Your task to perform on an android device: turn off wifi Image 0: 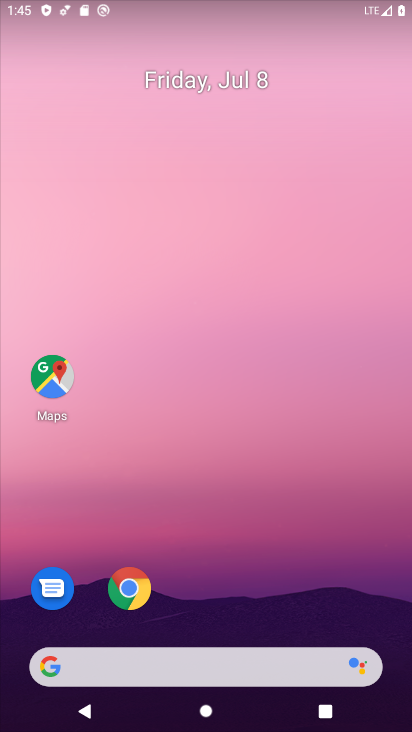
Step 0: press home button
Your task to perform on an android device: turn off wifi Image 1: 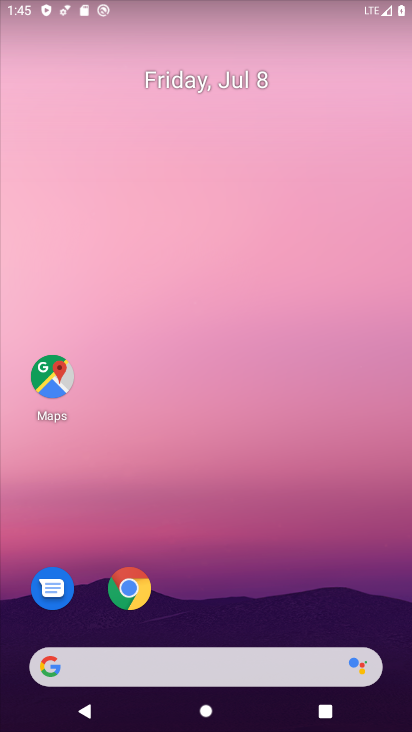
Step 1: task complete